Your task to perform on an android device: remove spam from my inbox in the gmail app Image 0: 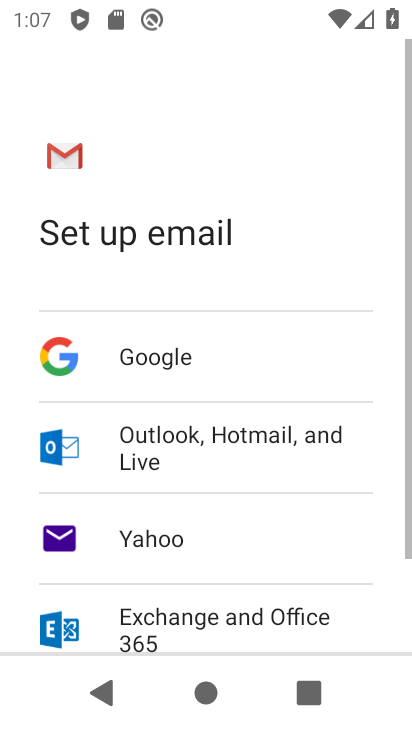
Step 0: press back button
Your task to perform on an android device: remove spam from my inbox in the gmail app Image 1: 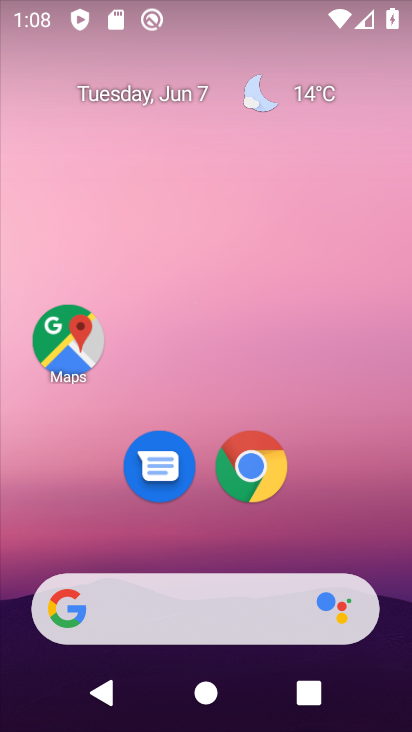
Step 1: drag from (192, 530) to (283, 23)
Your task to perform on an android device: remove spam from my inbox in the gmail app Image 2: 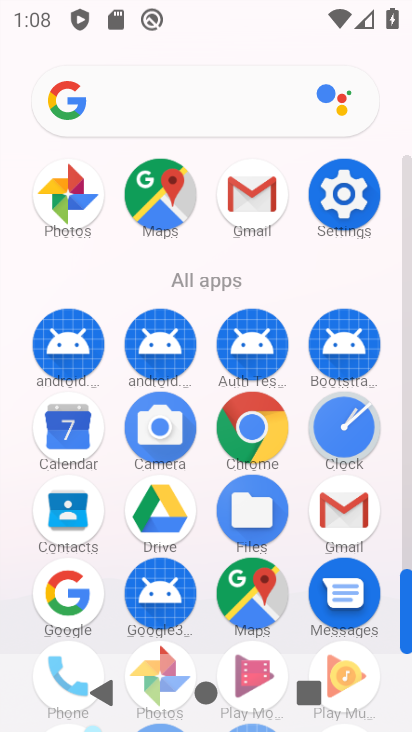
Step 2: click (257, 201)
Your task to perform on an android device: remove spam from my inbox in the gmail app Image 3: 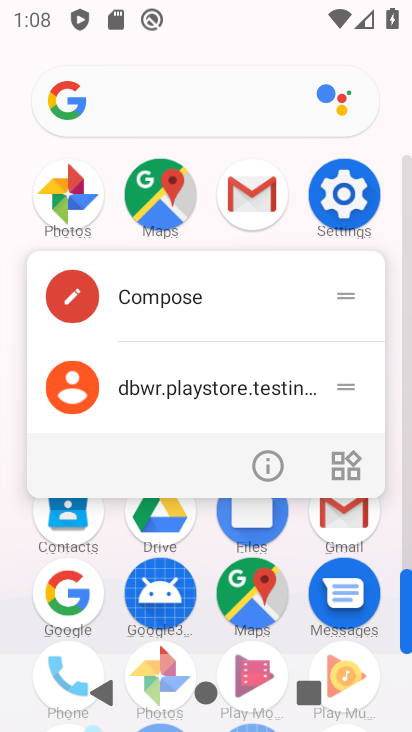
Step 3: click (256, 193)
Your task to perform on an android device: remove spam from my inbox in the gmail app Image 4: 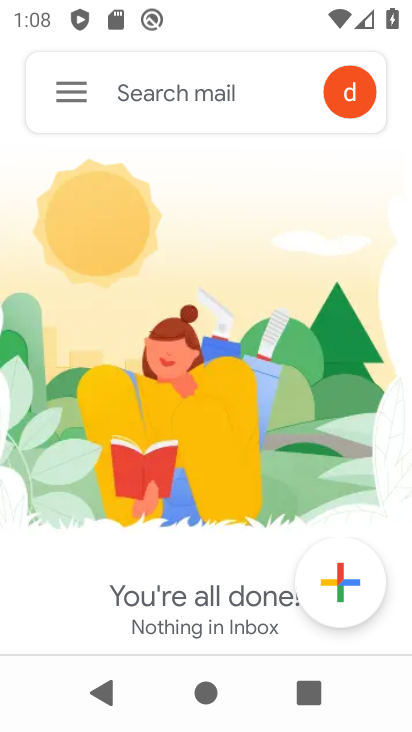
Step 4: click (73, 95)
Your task to perform on an android device: remove spam from my inbox in the gmail app Image 5: 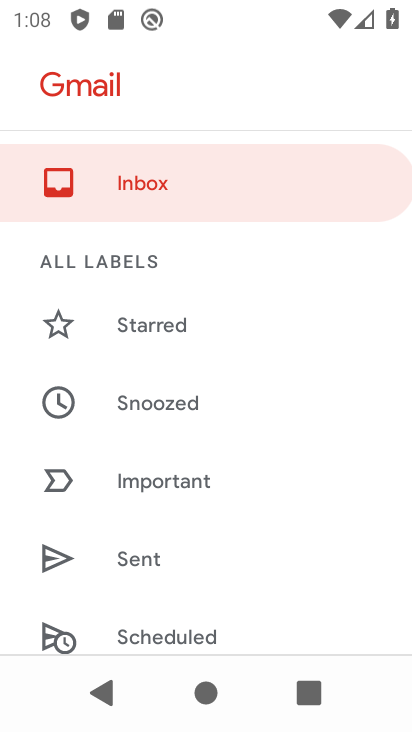
Step 5: drag from (129, 613) to (193, 242)
Your task to perform on an android device: remove spam from my inbox in the gmail app Image 6: 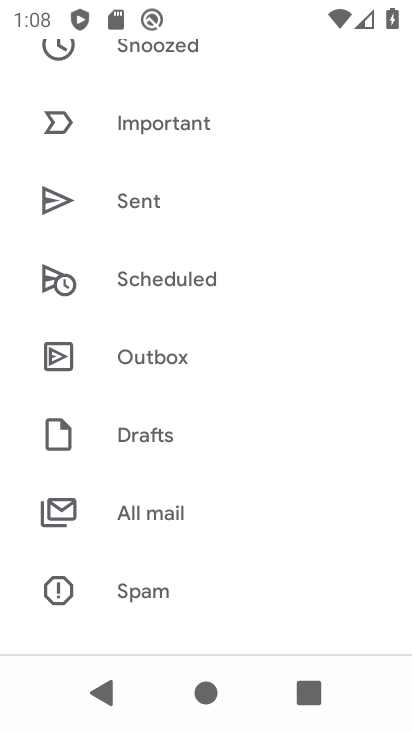
Step 6: click (132, 599)
Your task to perform on an android device: remove spam from my inbox in the gmail app Image 7: 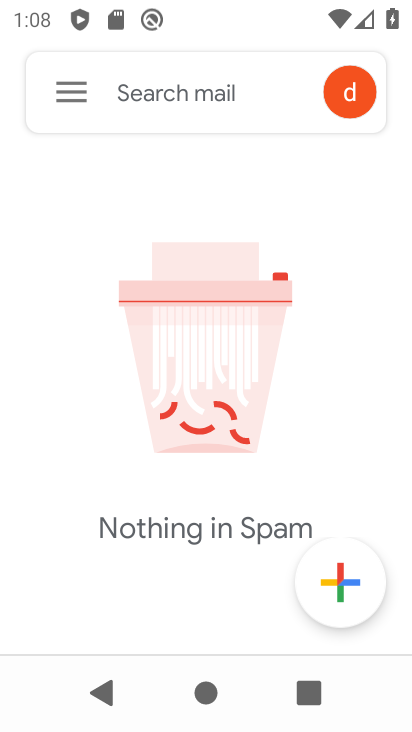
Step 7: task complete